Your task to perform on an android device: Check the news Image 0: 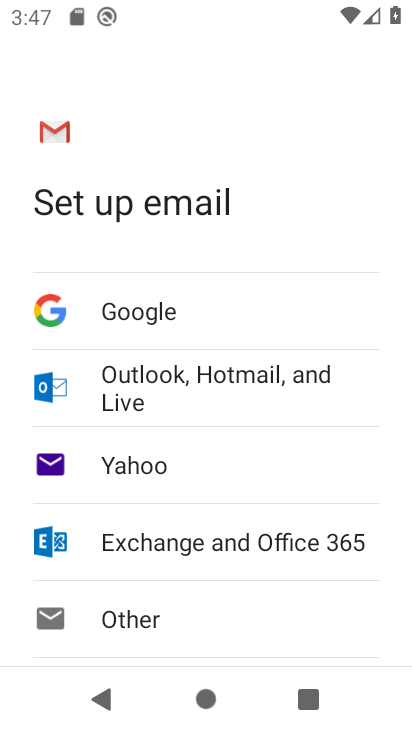
Step 0: press home button
Your task to perform on an android device: Check the news Image 1: 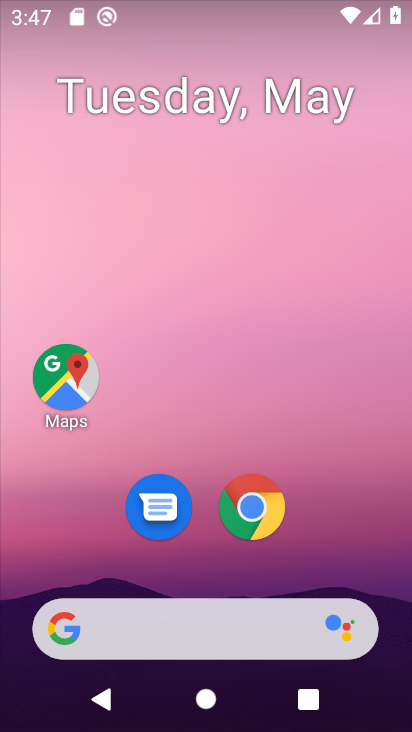
Step 1: click (173, 605)
Your task to perform on an android device: Check the news Image 2: 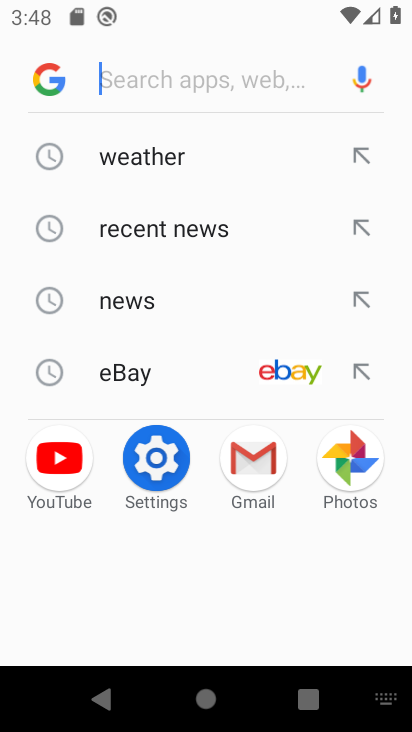
Step 2: type "news"
Your task to perform on an android device: Check the news Image 3: 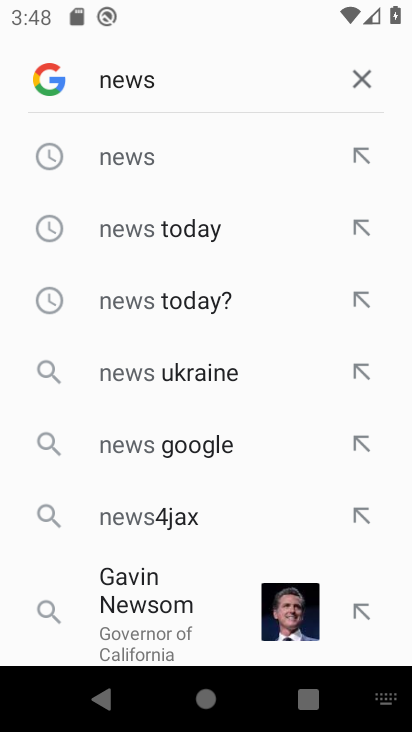
Step 3: click (131, 156)
Your task to perform on an android device: Check the news Image 4: 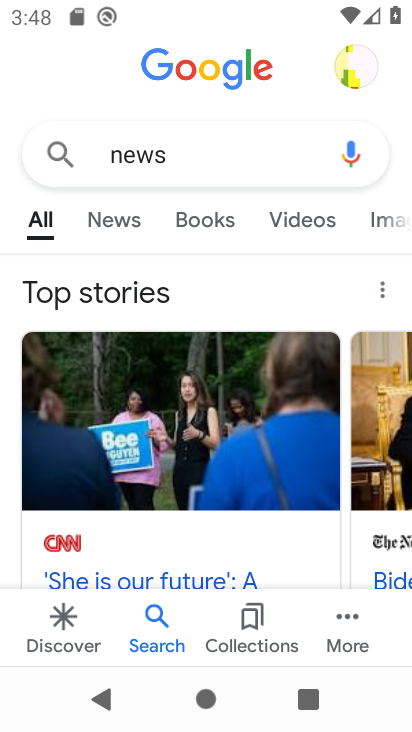
Step 4: click (145, 214)
Your task to perform on an android device: Check the news Image 5: 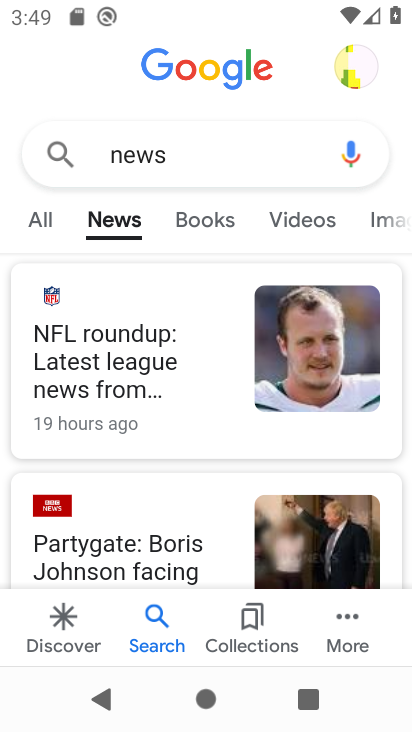
Step 5: task complete